Your task to perform on an android device: add a contact Image 0: 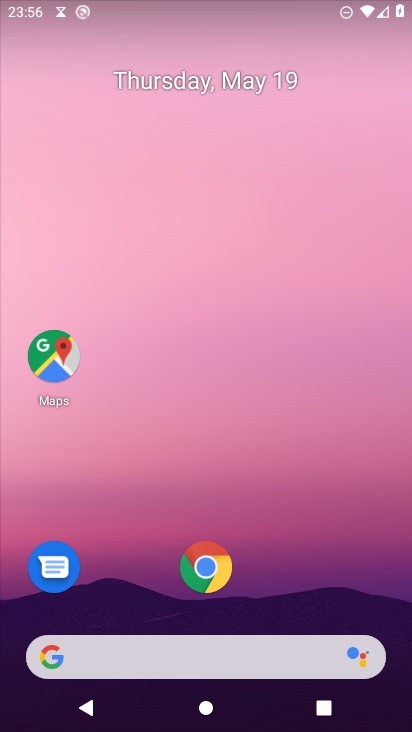
Step 0: press home button
Your task to perform on an android device: add a contact Image 1: 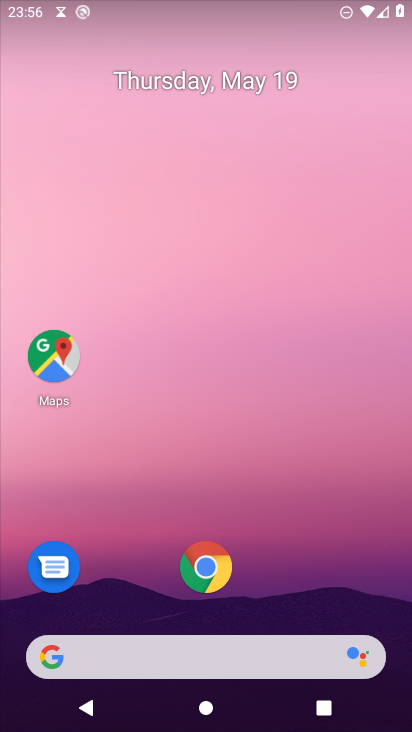
Step 1: drag from (152, 619) to (239, 118)
Your task to perform on an android device: add a contact Image 2: 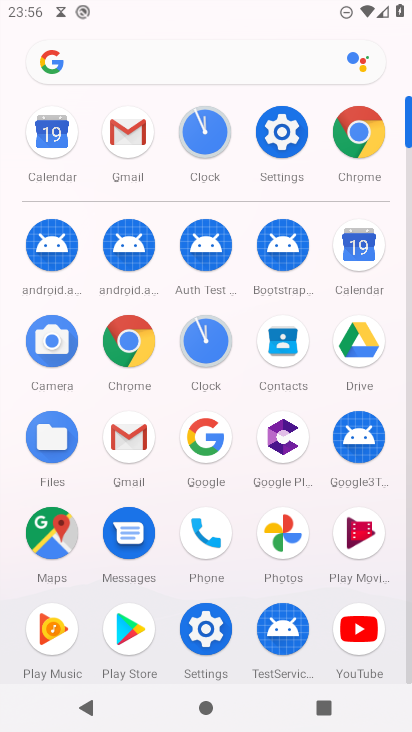
Step 2: click (280, 335)
Your task to perform on an android device: add a contact Image 3: 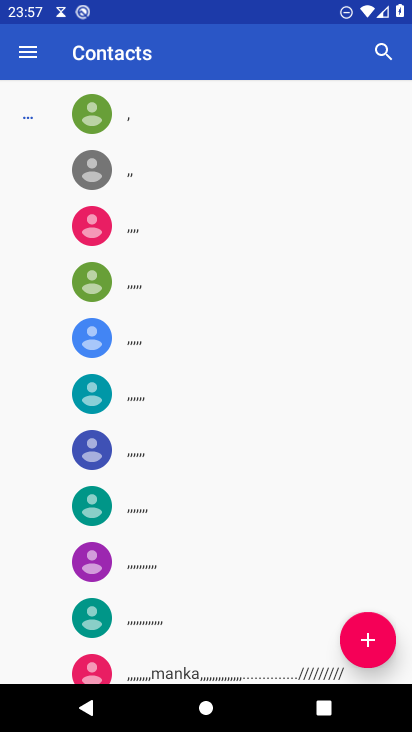
Step 3: click (367, 629)
Your task to perform on an android device: add a contact Image 4: 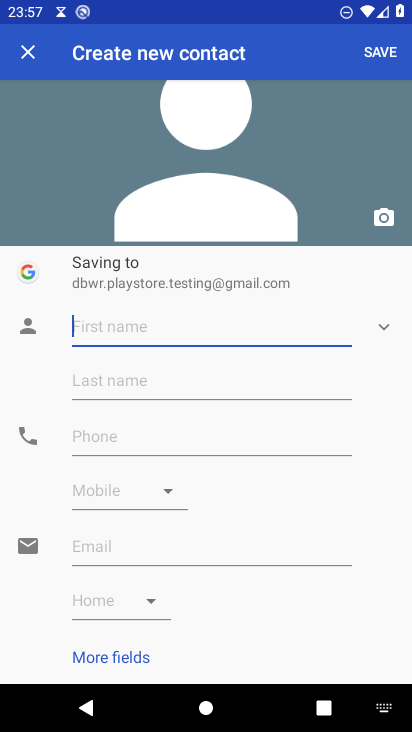
Step 4: type "mhdgh"
Your task to perform on an android device: add a contact Image 5: 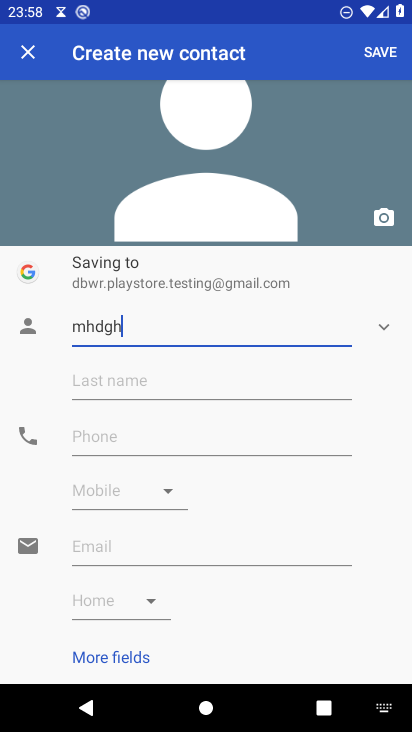
Step 5: click (377, 55)
Your task to perform on an android device: add a contact Image 6: 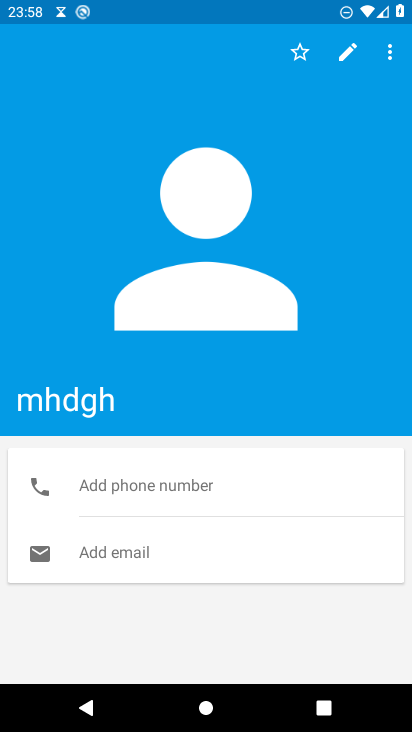
Step 6: task complete